Your task to perform on an android device: Search for seafood restaurants on Google Maps Image 0: 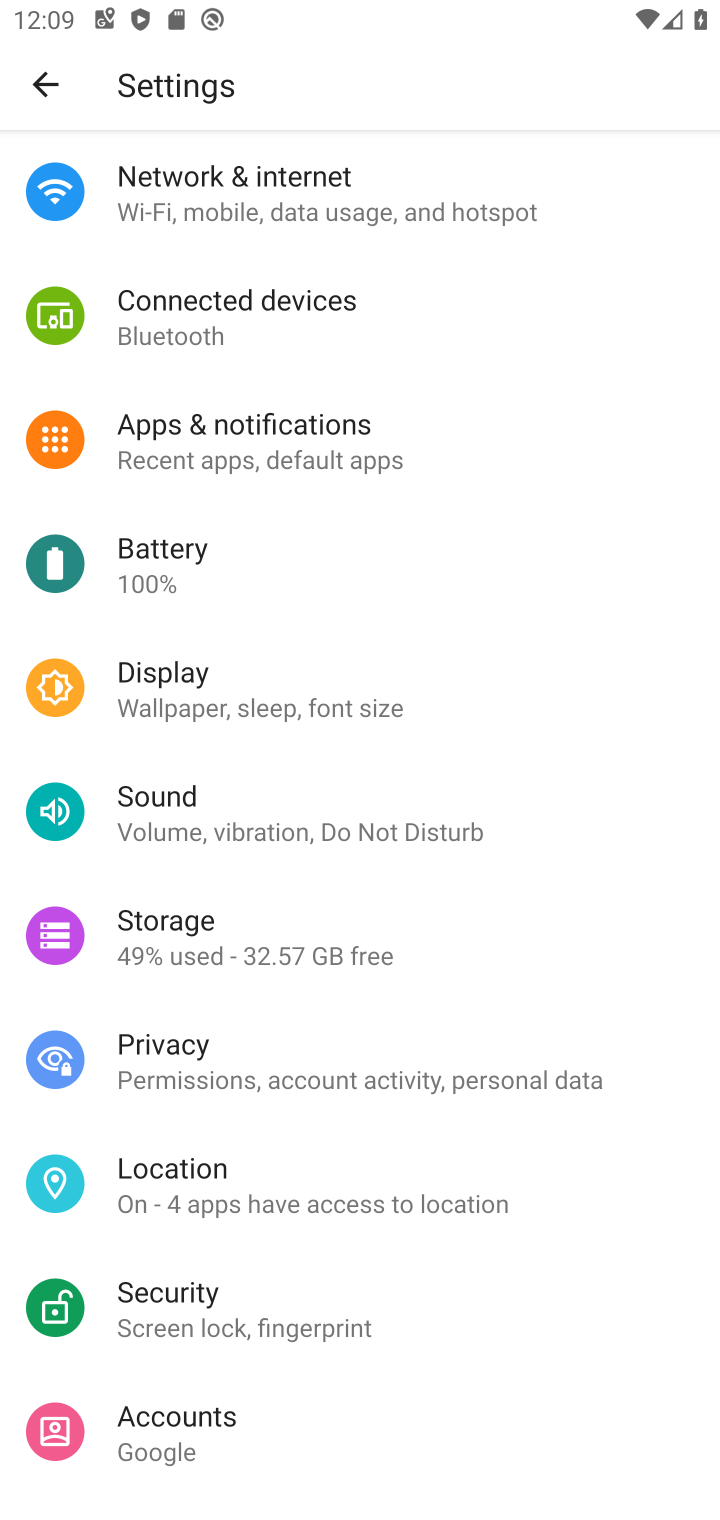
Step 0: press back button
Your task to perform on an android device: Search for seafood restaurants on Google Maps Image 1: 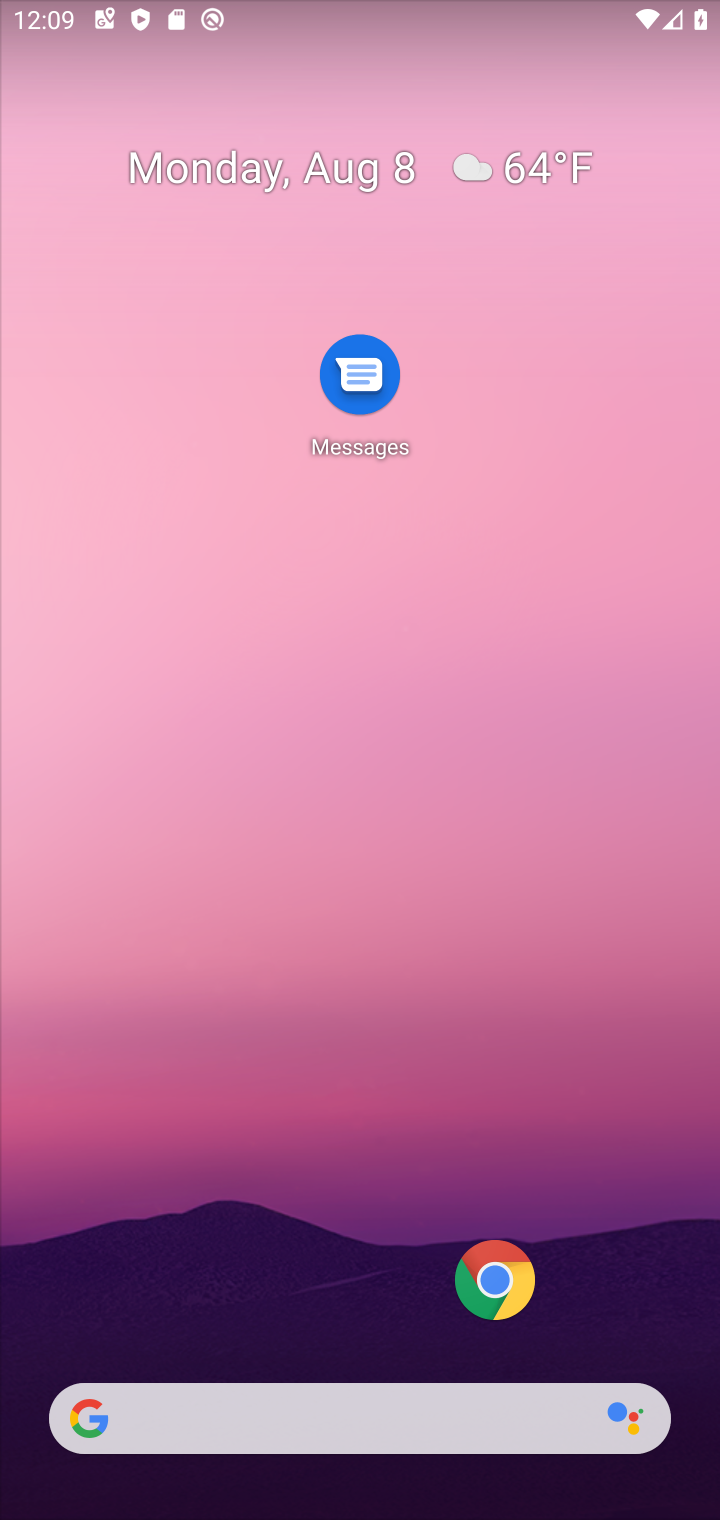
Step 1: drag from (199, 1299) to (379, 14)
Your task to perform on an android device: Search for seafood restaurants on Google Maps Image 2: 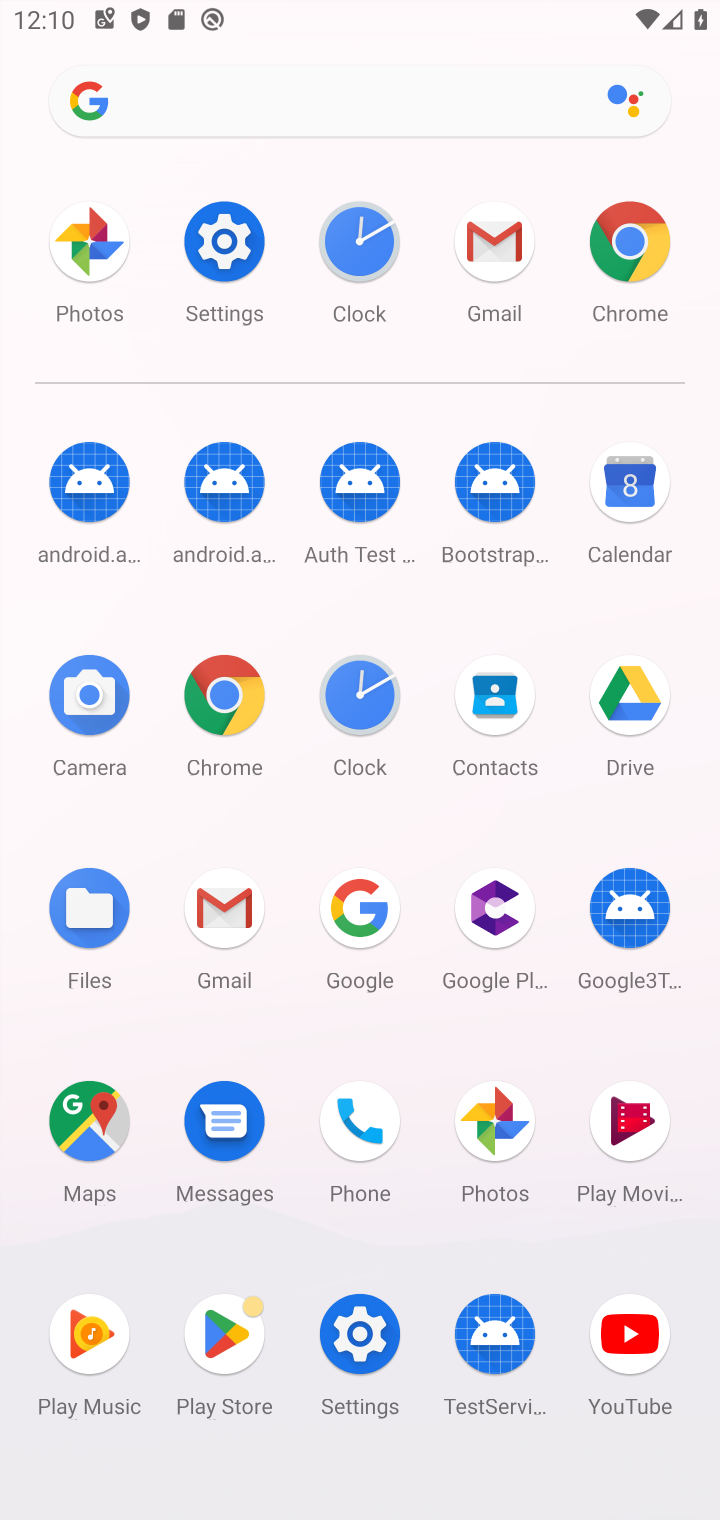
Step 2: click (100, 1147)
Your task to perform on an android device: Search for seafood restaurants on Google Maps Image 3: 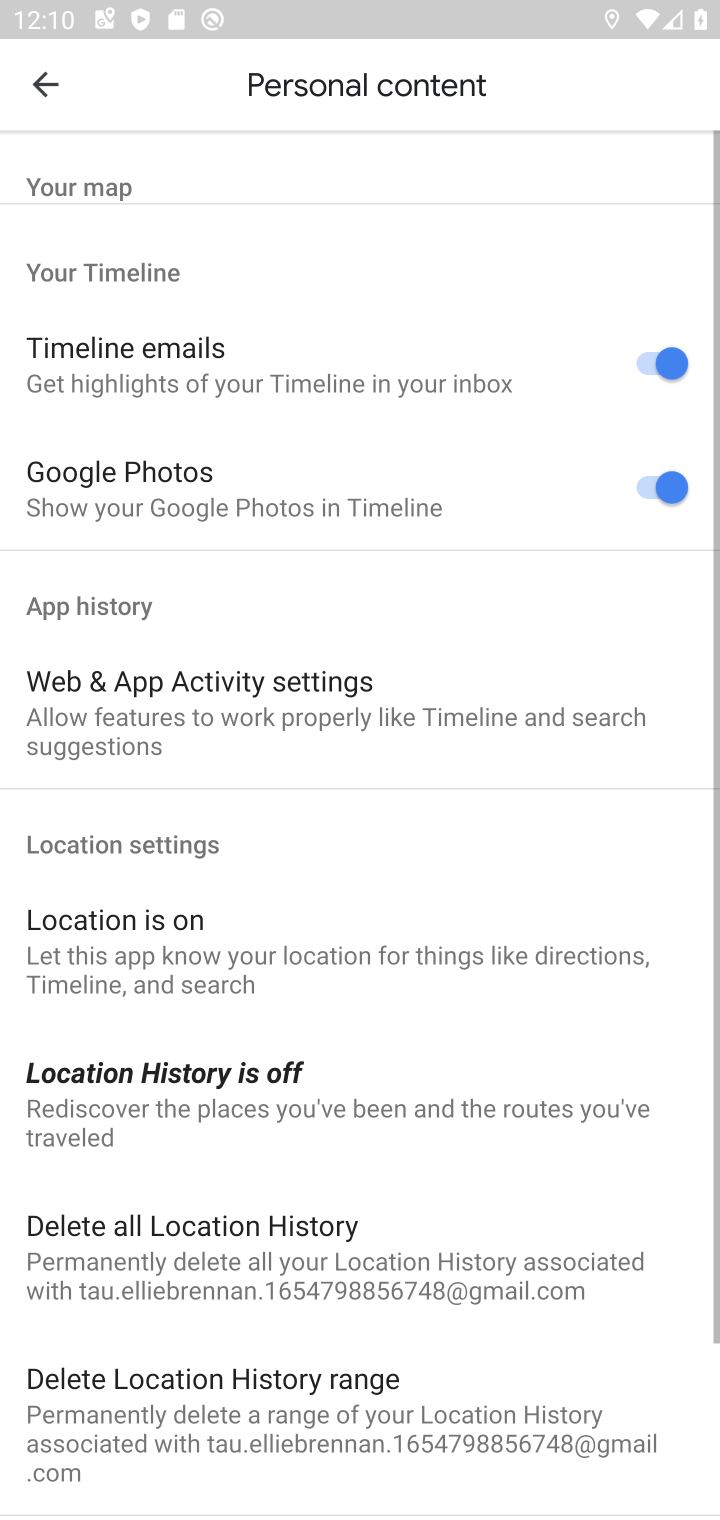
Step 3: click (49, 87)
Your task to perform on an android device: Search for seafood restaurants on Google Maps Image 4: 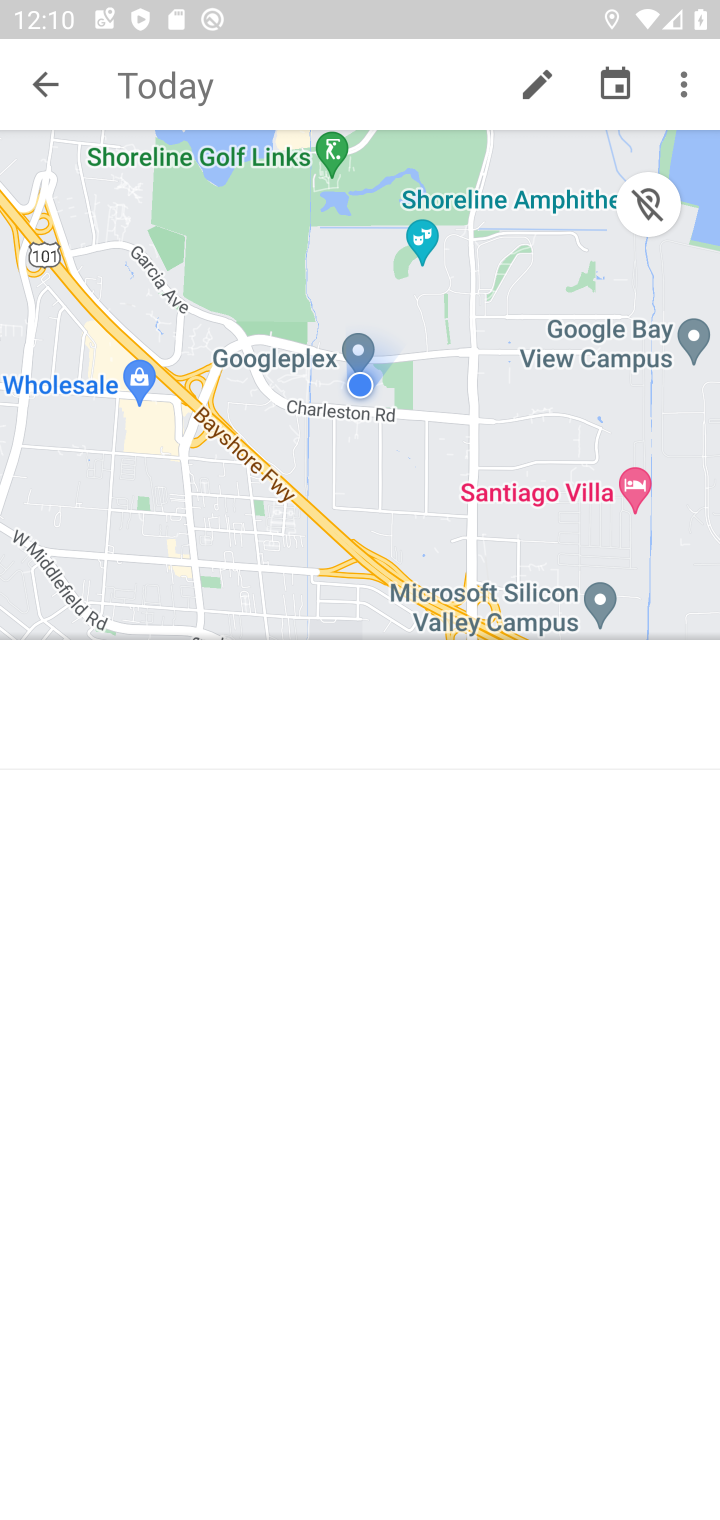
Step 4: click (42, 74)
Your task to perform on an android device: Search for seafood restaurants on Google Maps Image 5: 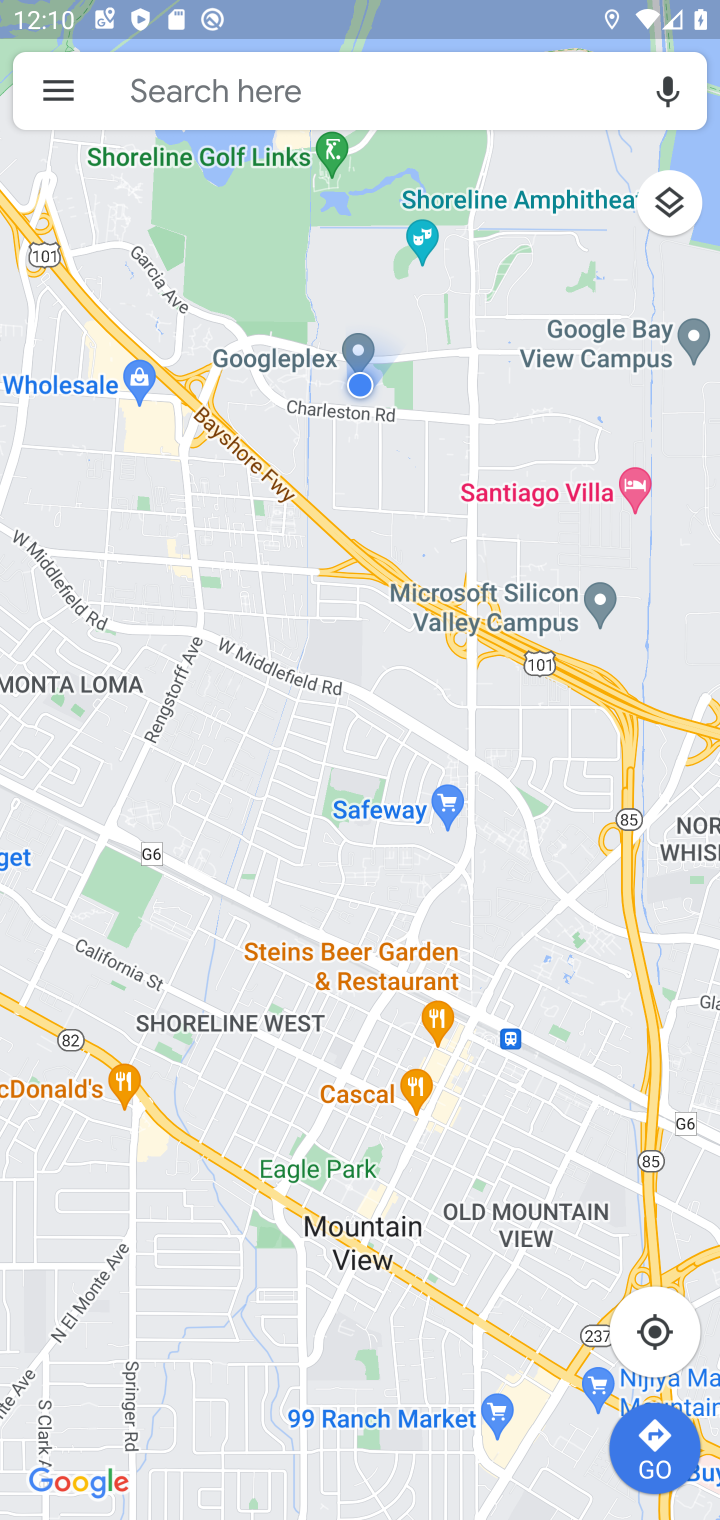
Step 5: click (275, 84)
Your task to perform on an android device: Search for seafood restaurants on Google Maps Image 6: 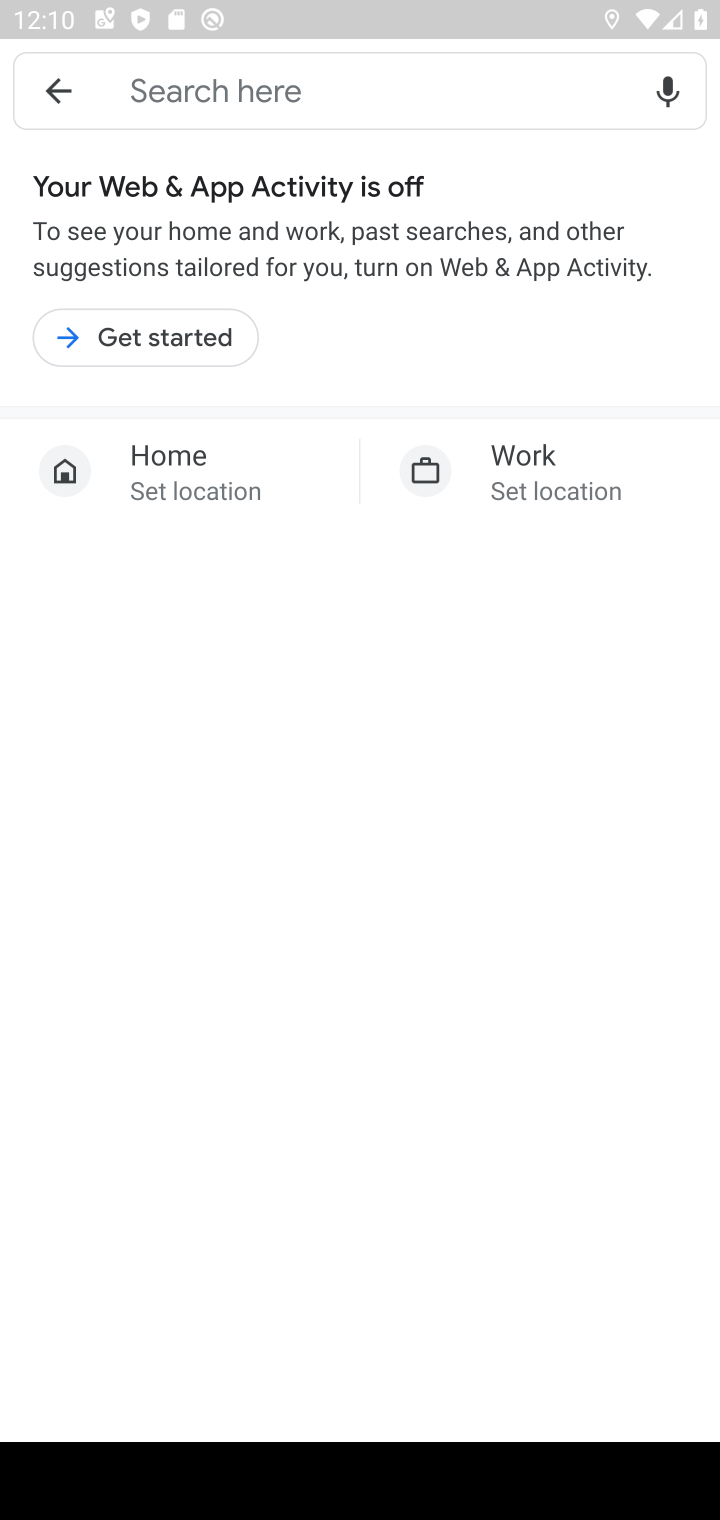
Step 6: click (215, 76)
Your task to perform on an android device: Search for seafood restaurants on Google Maps Image 7: 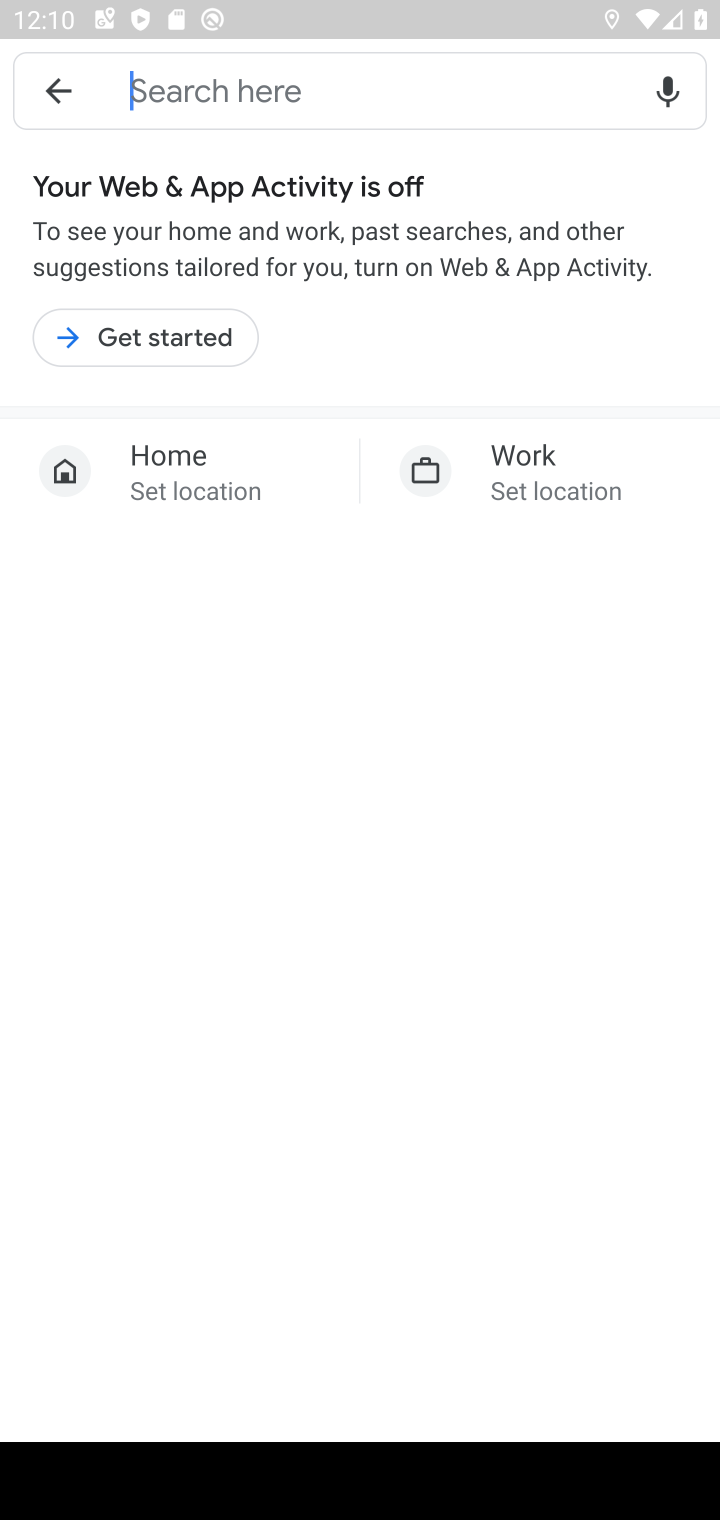
Step 7: press back button
Your task to perform on an android device: Search for seafood restaurants on Google Maps Image 8: 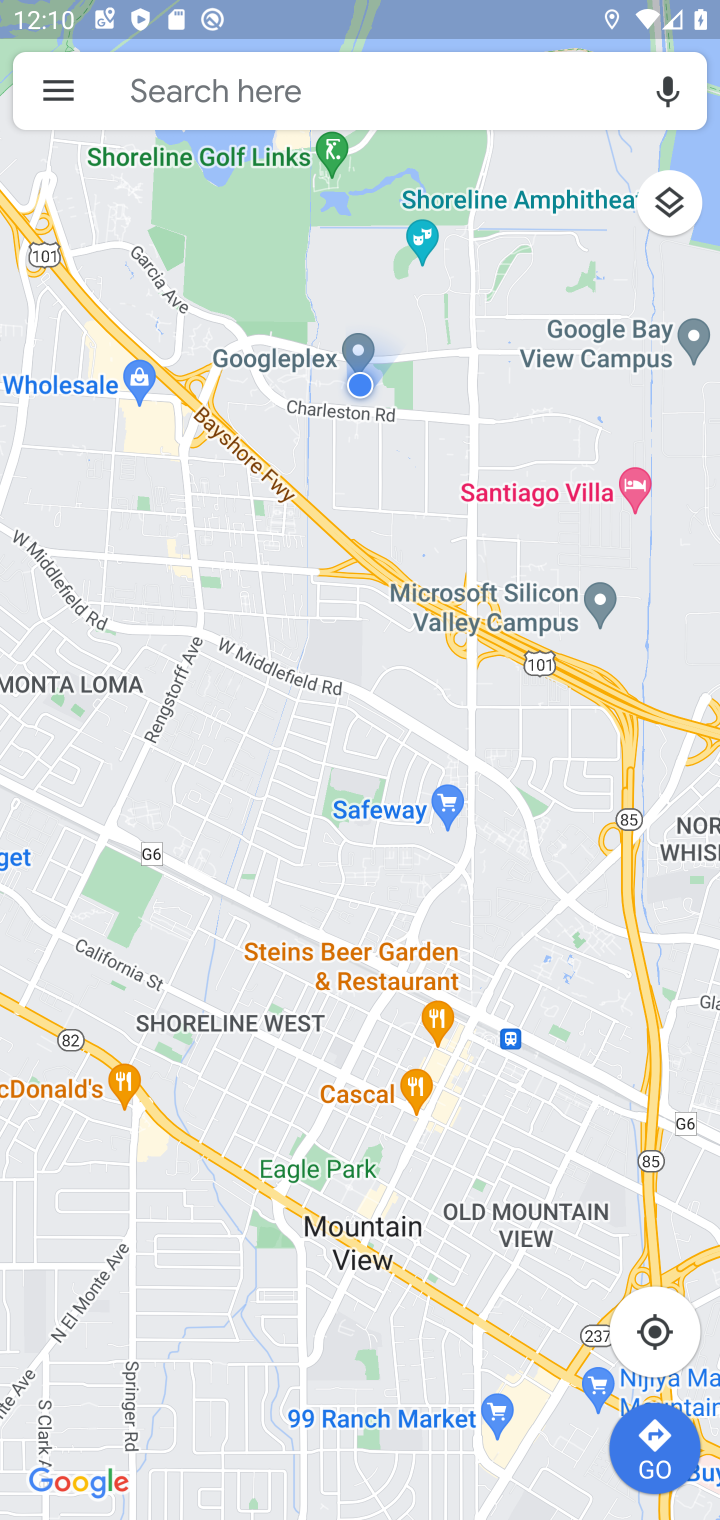
Step 8: click (216, 97)
Your task to perform on an android device: Search for seafood restaurants on Google Maps Image 9: 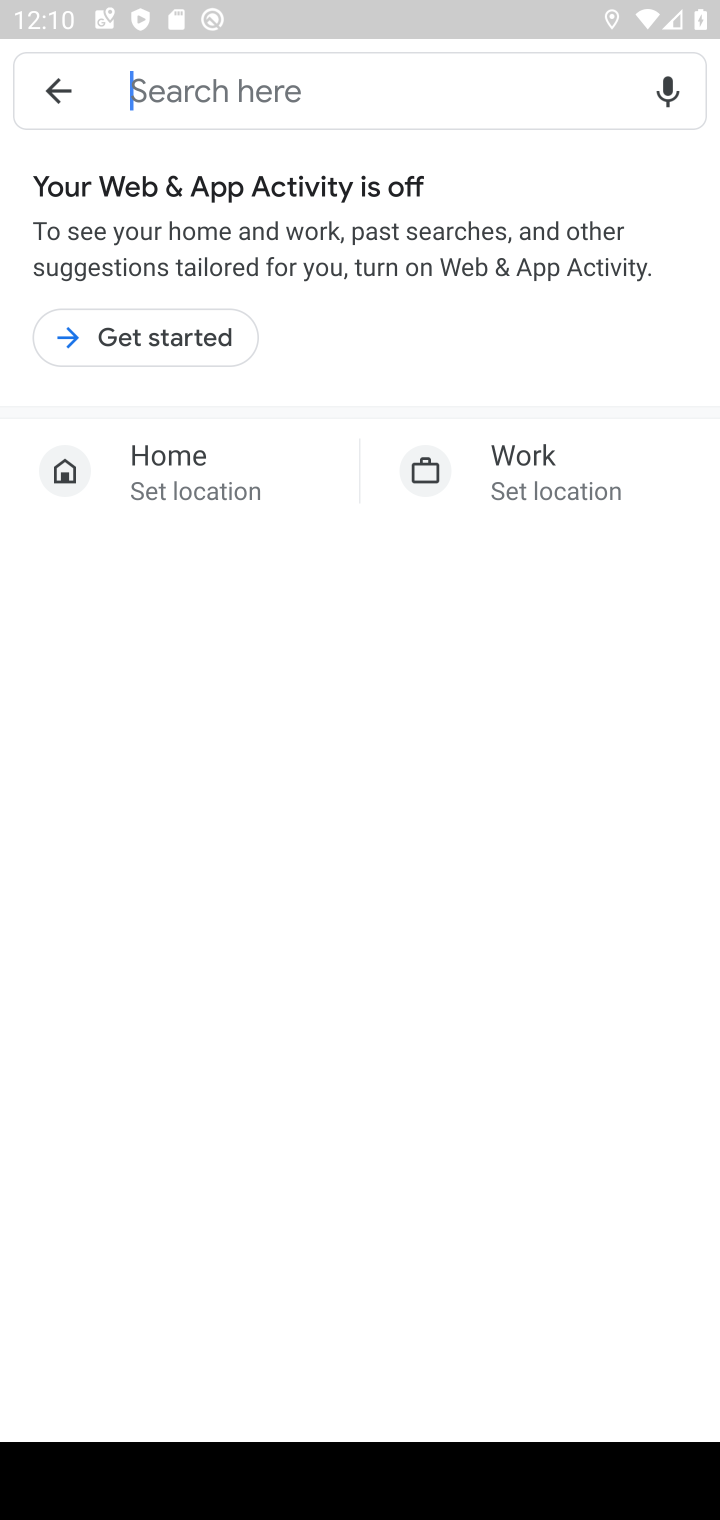
Step 9: type "seafood restaurants"
Your task to perform on an android device: Search for seafood restaurants on Google Maps Image 10: 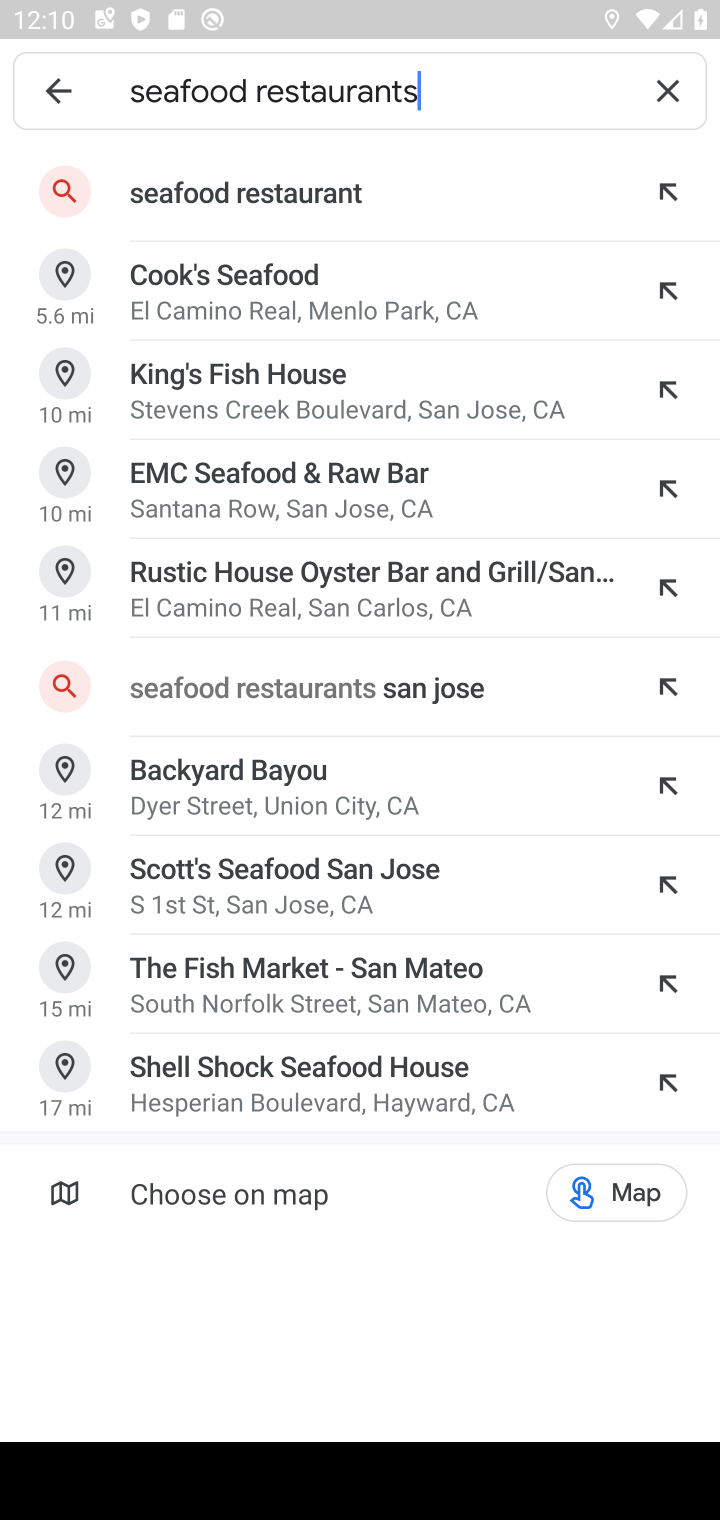
Step 10: click (301, 185)
Your task to perform on an android device: Search for seafood restaurants on Google Maps Image 11: 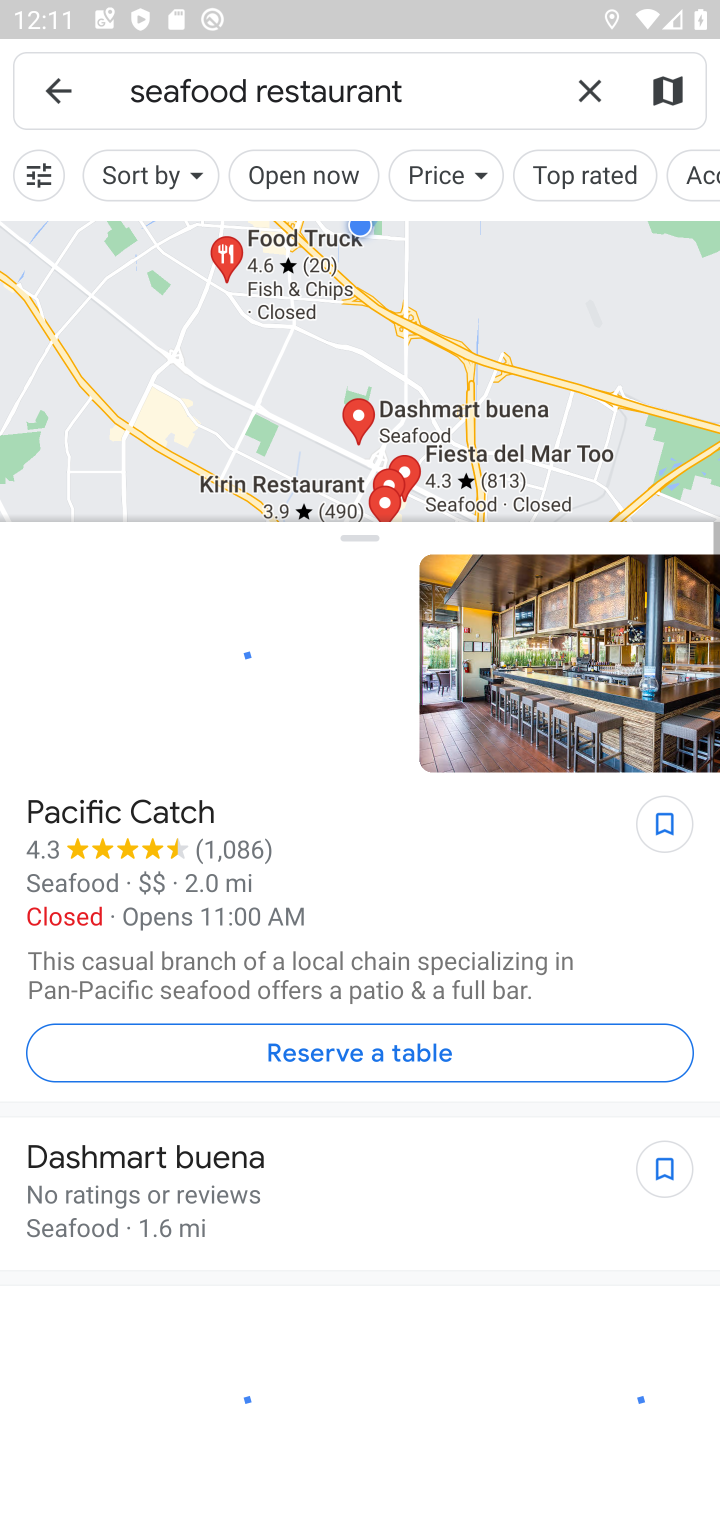
Step 11: task complete